Your task to perform on an android device: Do I have any events this weekend? Image 0: 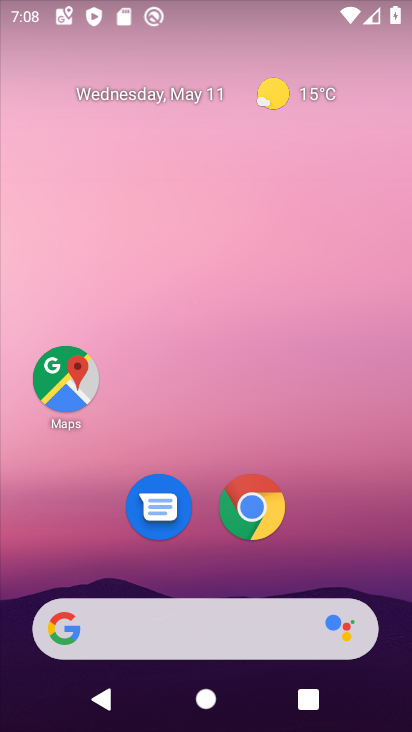
Step 0: drag from (249, 537) to (220, 230)
Your task to perform on an android device: Do I have any events this weekend? Image 1: 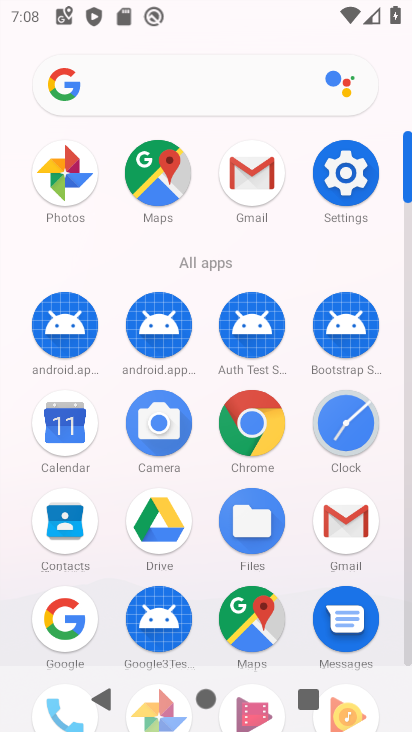
Step 1: click (74, 419)
Your task to perform on an android device: Do I have any events this weekend? Image 2: 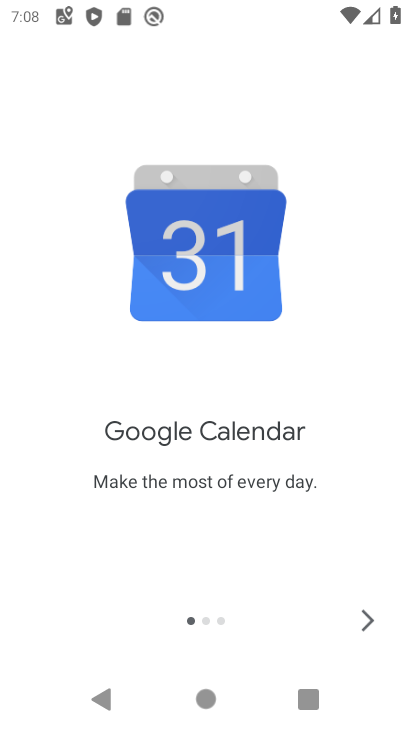
Step 2: click (358, 625)
Your task to perform on an android device: Do I have any events this weekend? Image 3: 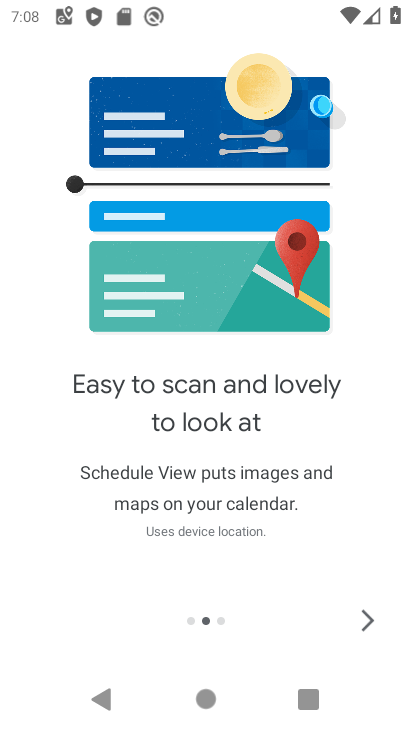
Step 3: click (363, 625)
Your task to perform on an android device: Do I have any events this weekend? Image 4: 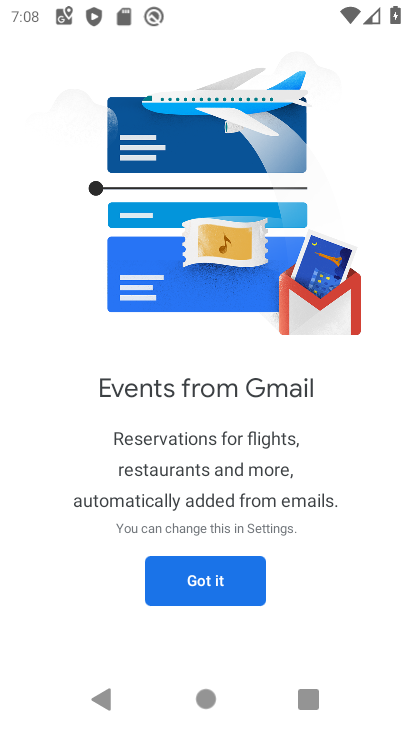
Step 4: click (209, 578)
Your task to perform on an android device: Do I have any events this weekend? Image 5: 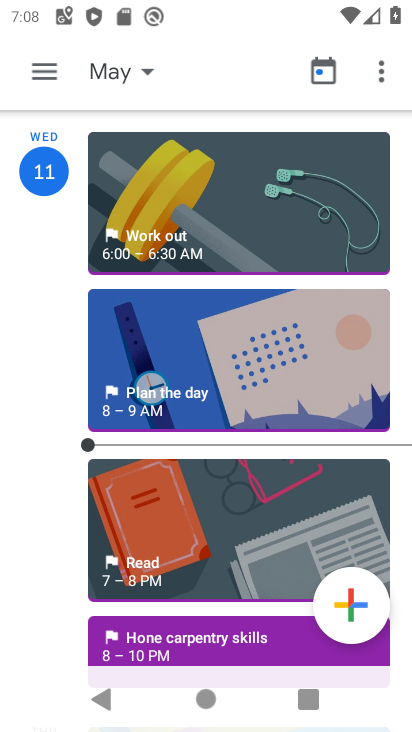
Step 5: task complete